Your task to perform on an android device: Is it going to rain this weekend? Image 0: 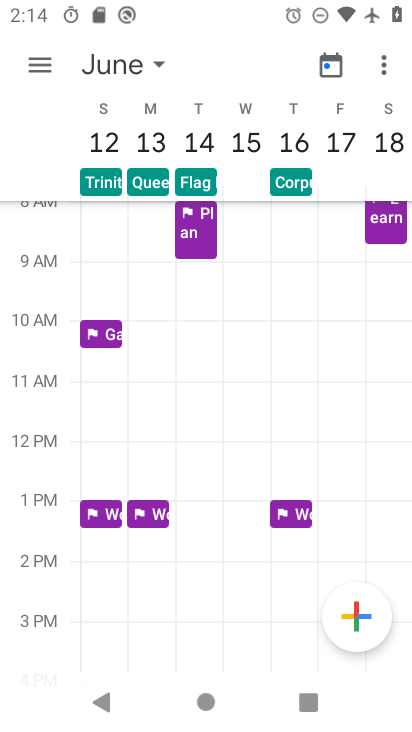
Step 0: press home button
Your task to perform on an android device: Is it going to rain this weekend? Image 1: 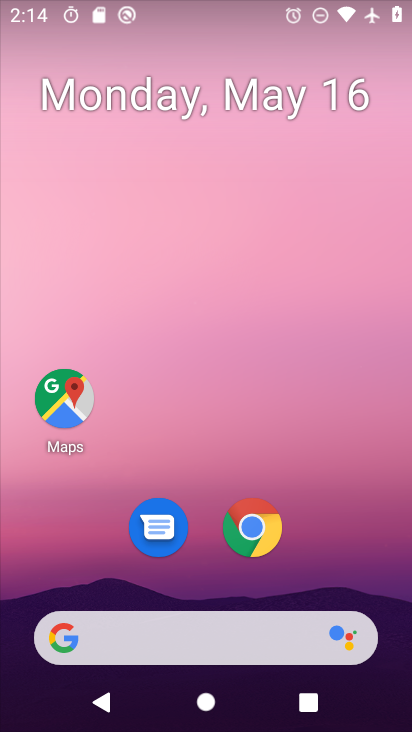
Step 1: click (72, 643)
Your task to perform on an android device: Is it going to rain this weekend? Image 2: 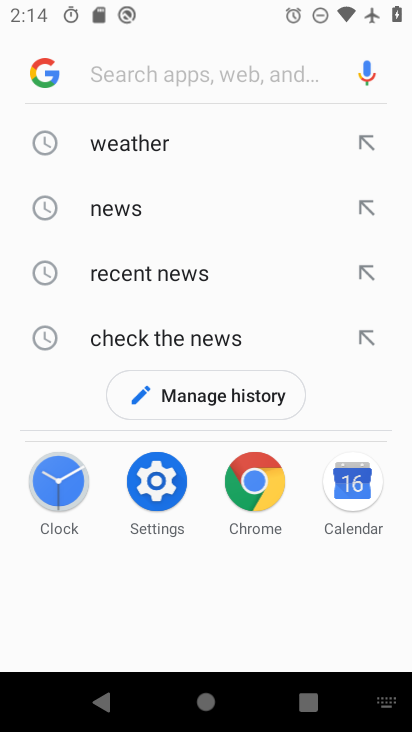
Step 2: click (153, 150)
Your task to perform on an android device: Is it going to rain this weekend? Image 3: 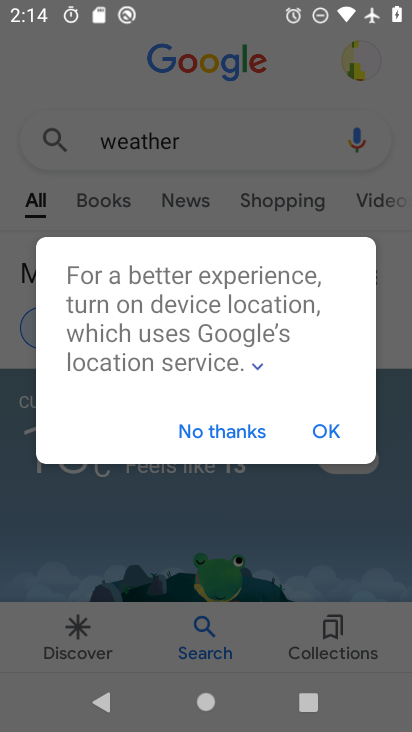
Step 3: click (341, 434)
Your task to perform on an android device: Is it going to rain this weekend? Image 4: 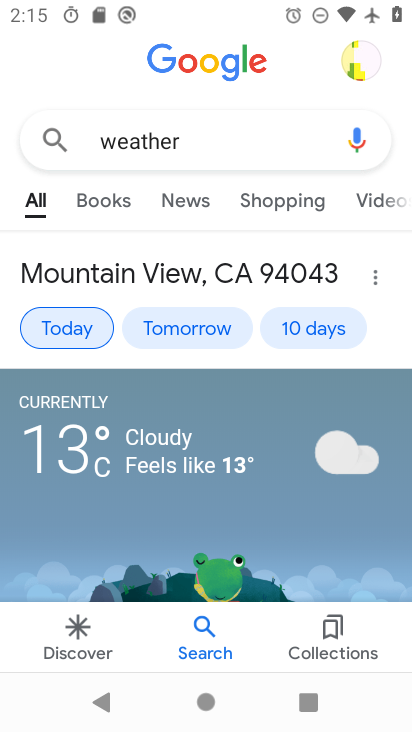
Step 4: click (308, 332)
Your task to perform on an android device: Is it going to rain this weekend? Image 5: 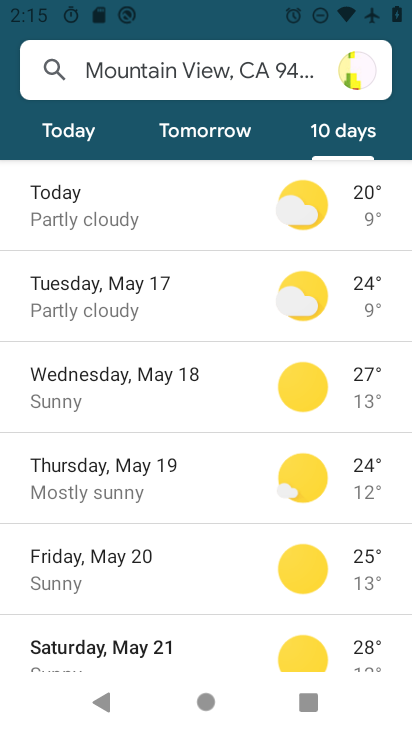
Step 5: task complete